Your task to perform on an android device: turn off notifications in google photos Image 0: 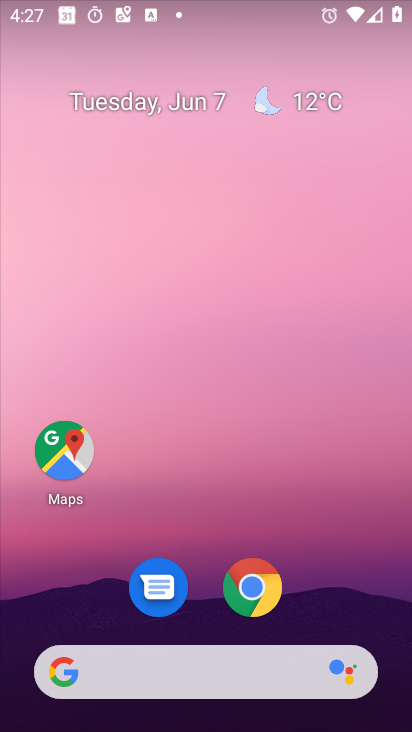
Step 0: drag from (180, 595) to (212, 42)
Your task to perform on an android device: turn off notifications in google photos Image 1: 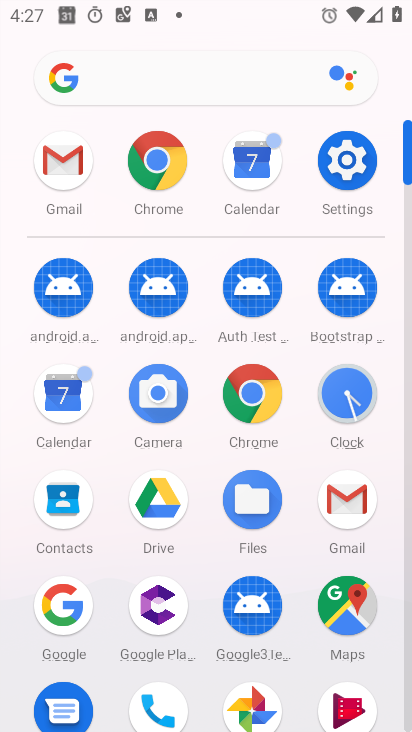
Step 1: click (266, 695)
Your task to perform on an android device: turn off notifications in google photos Image 2: 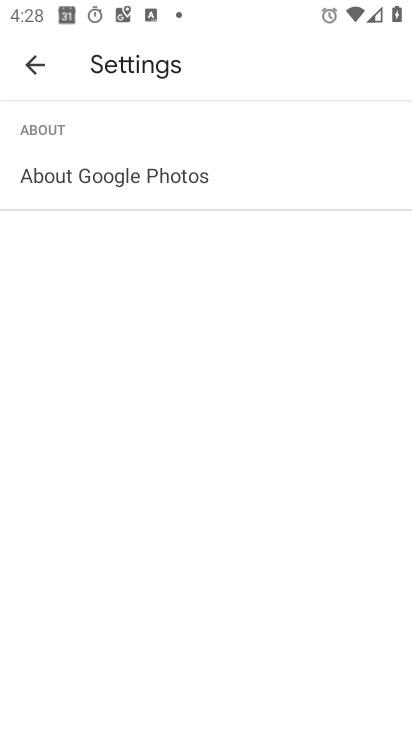
Step 2: click (31, 57)
Your task to perform on an android device: turn off notifications in google photos Image 3: 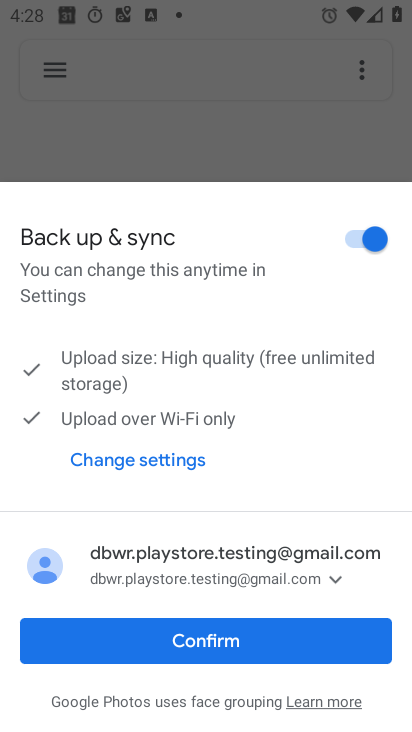
Step 3: click (190, 646)
Your task to perform on an android device: turn off notifications in google photos Image 4: 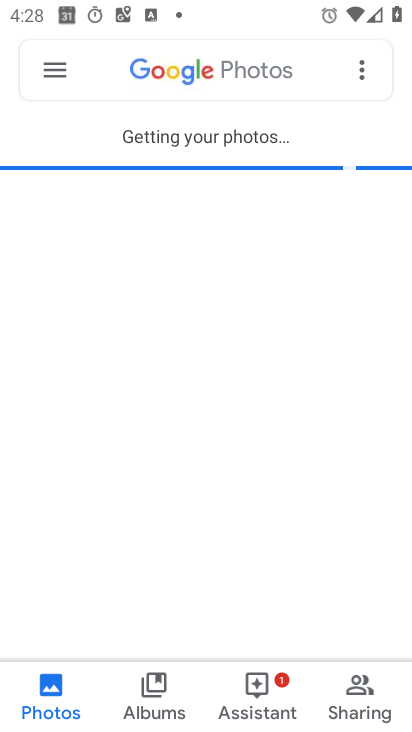
Step 4: click (60, 79)
Your task to perform on an android device: turn off notifications in google photos Image 5: 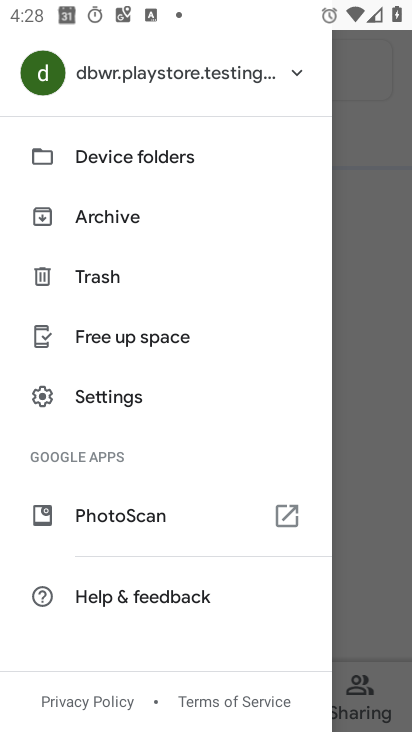
Step 5: click (113, 400)
Your task to perform on an android device: turn off notifications in google photos Image 6: 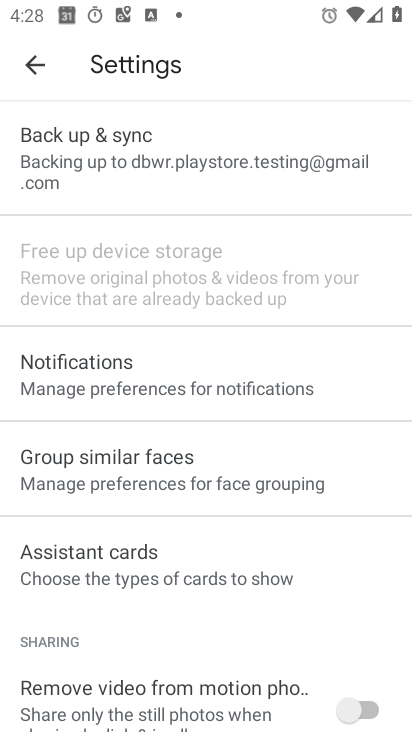
Step 6: click (196, 376)
Your task to perform on an android device: turn off notifications in google photos Image 7: 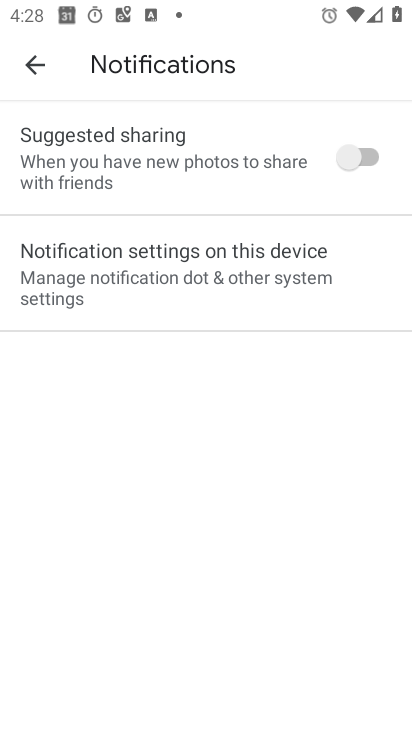
Step 7: click (186, 292)
Your task to perform on an android device: turn off notifications in google photos Image 8: 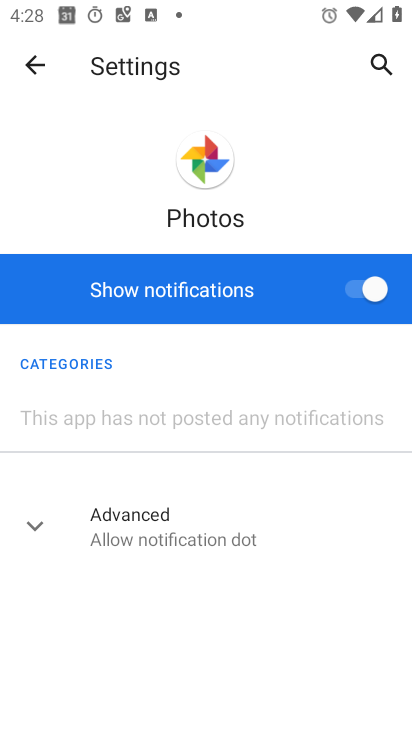
Step 8: click (49, 274)
Your task to perform on an android device: turn off notifications in google photos Image 9: 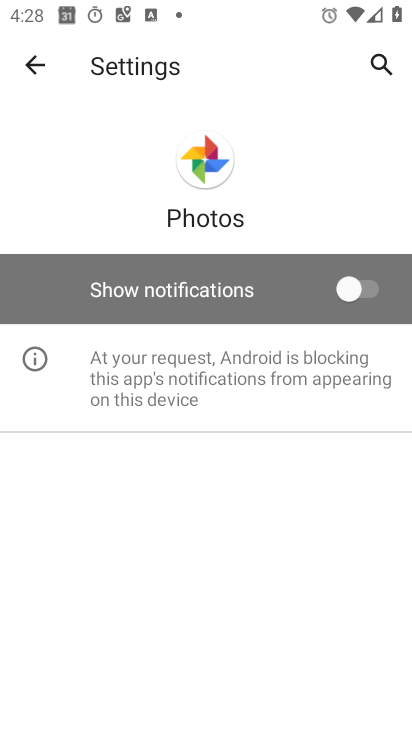
Step 9: task complete